Your task to perform on an android device: Show me productivity apps on the Play Store Image 0: 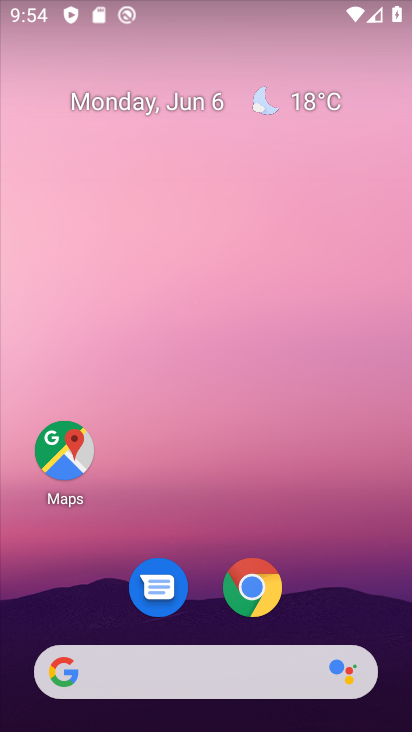
Step 0: drag from (184, 586) to (187, 420)
Your task to perform on an android device: Show me productivity apps on the Play Store Image 1: 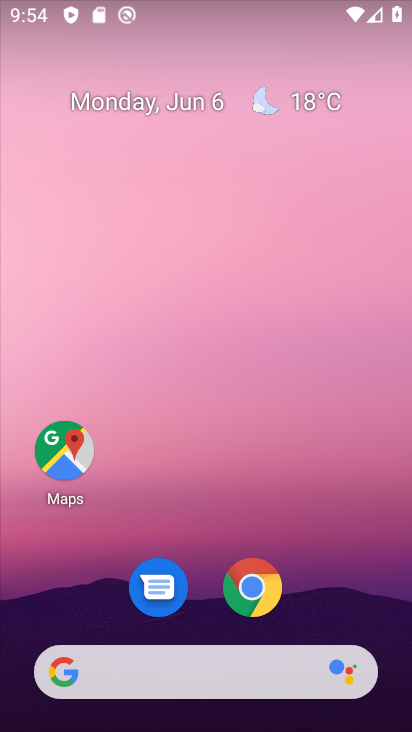
Step 1: drag from (220, 606) to (243, 203)
Your task to perform on an android device: Show me productivity apps on the Play Store Image 2: 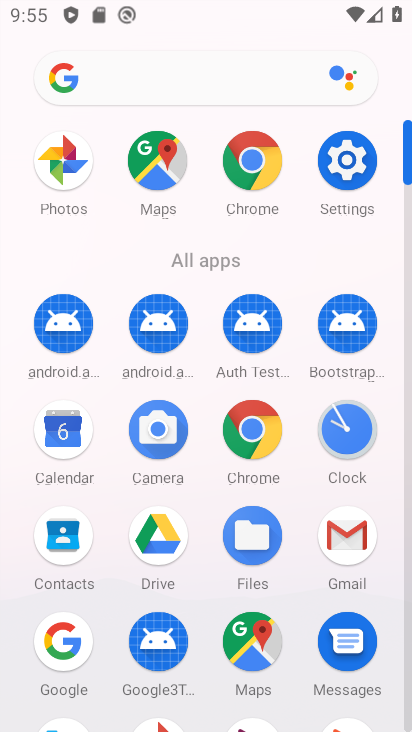
Step 2: drag from (214, 599) to (214, 239)
Your task to perform on an android device: Show me productivity apps on the Play Store Image 3: 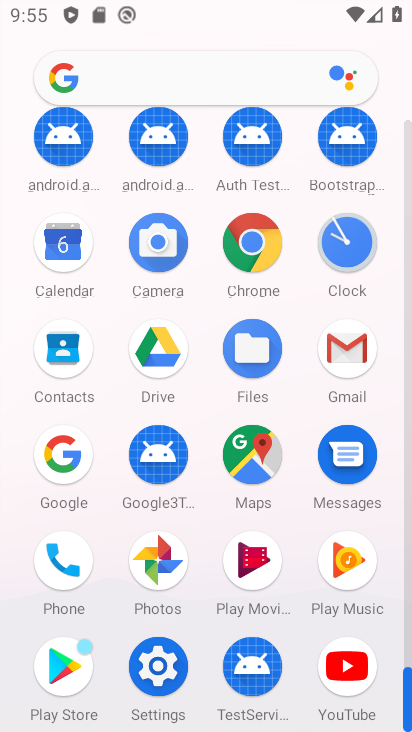
Step 3: click (63, 666)
Your task to perform on an android device: Show me productivity apps on the Play Store Image 4: 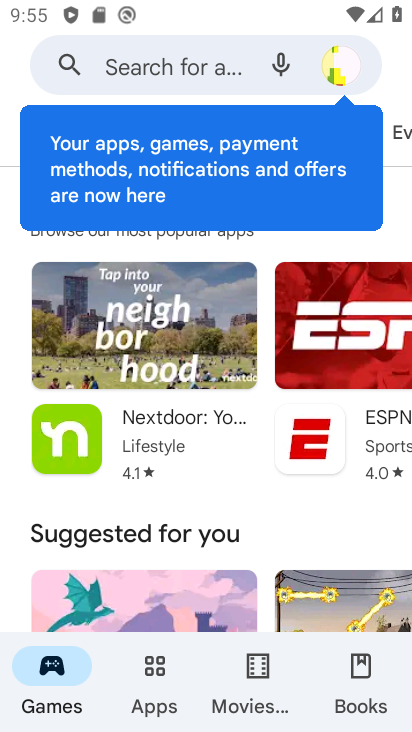
Step 4: click (153, 667)
Your task to perform on an android device: Show me productivity apps on the Play Store Image 5: 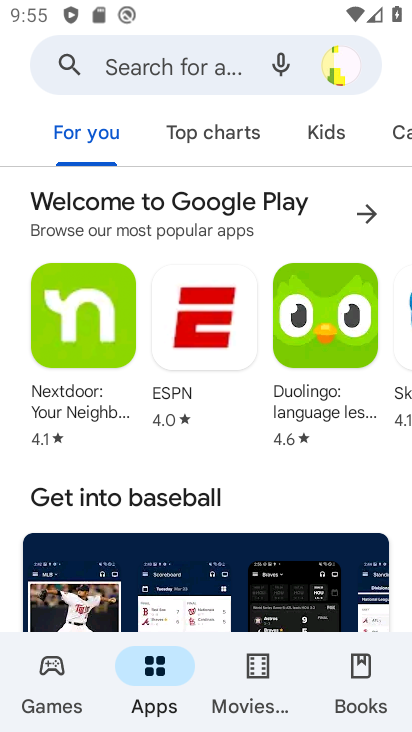
Step 5: task complete